Your task to perform on an android device: Open eBay Image 0: 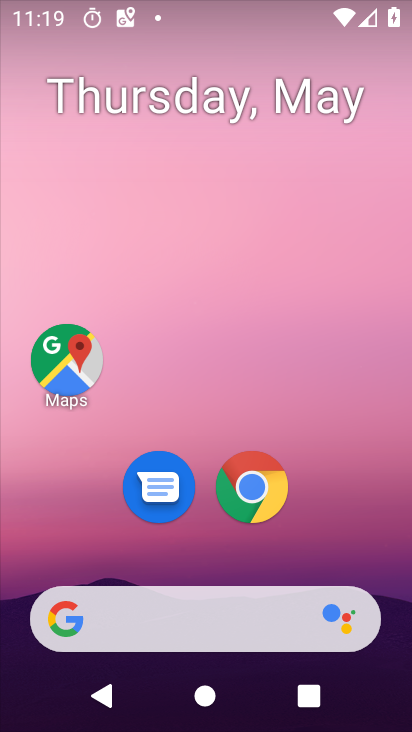
Step 0: click (256, 485)
Your task to perform on an android device: Open eBay Image 1: 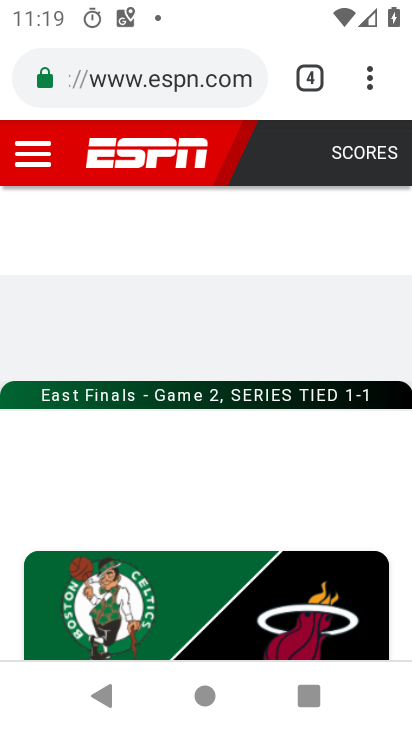
Step 1: click (312, 83)
Your task to perform on an android device: Open eBay Image 2: 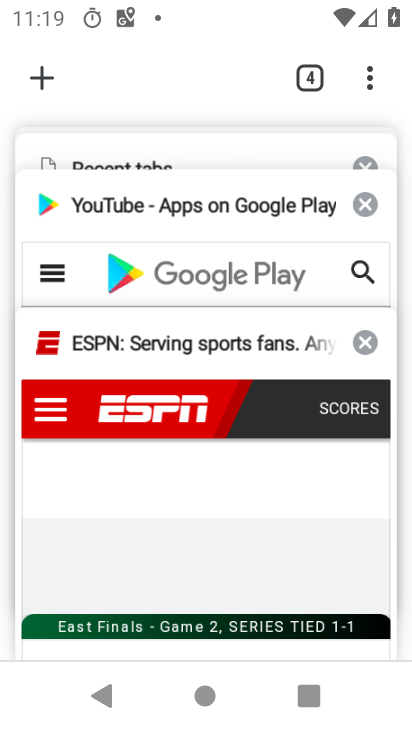
Step 2: click (39, 84)
Your task to perform on an android device: Open eBay Image 3: 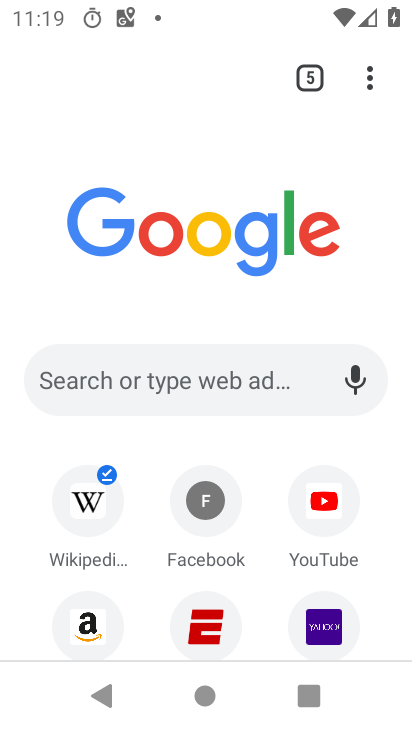
Step 3: click (193, 369)
Your task to perform on an android device: Open eBay Image 4: 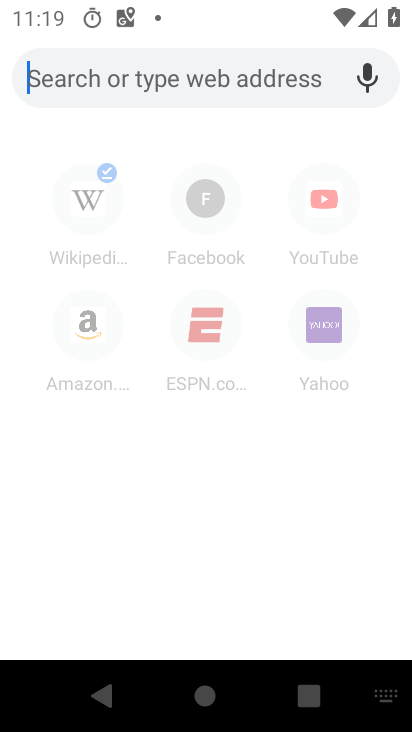
Step 4: type "ebay"
Your task to perform on an android device: Open eBay Image 5: 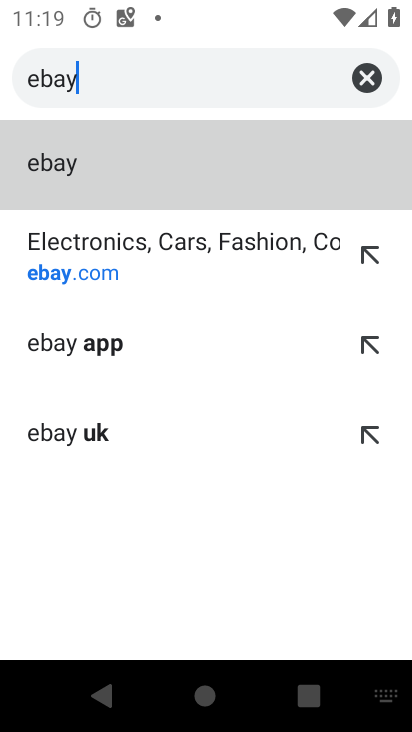
Step 5: click (169, 270)
Your task to perform on an android device: Open eBay Image 6: 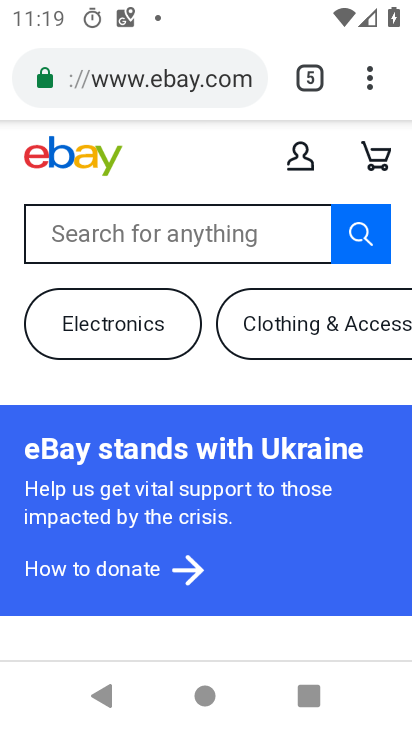
Step 6: task complete